Your task to perform on an android device: turn on translation in the chrome app Image 0: 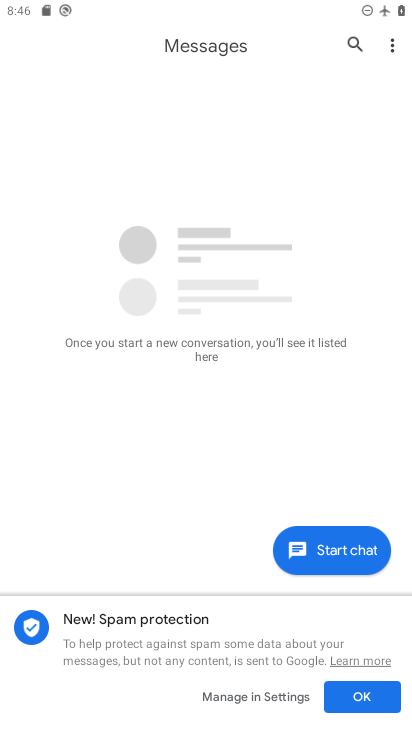
Step 0: press home button
Your task to perform on an android device: turn on translation in the chrome app Image 1: 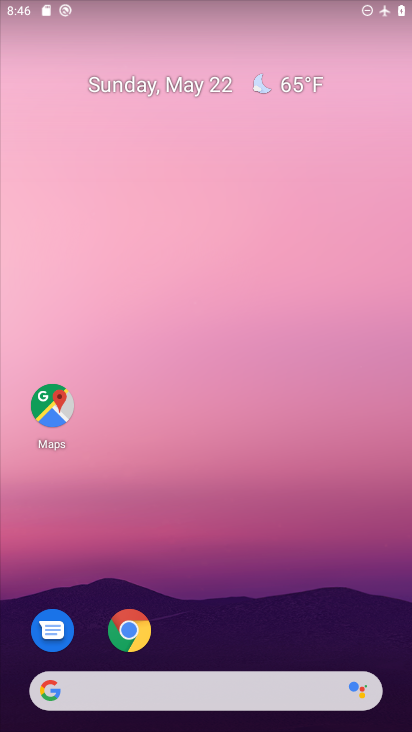
Step 1: drag from (187, 690) to (381, 206)
Your task to perform on an android device: turn on translation in the chrome app Image 2: 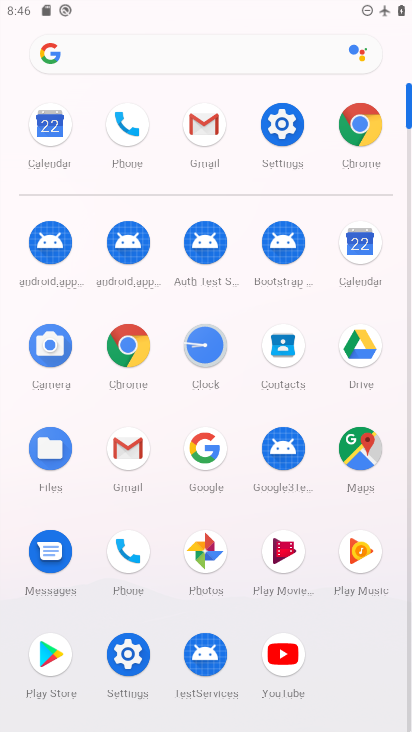
Step 2: click (355, 129)
Your task to perform on an android device: turn on translation in the chrome app Image 3: 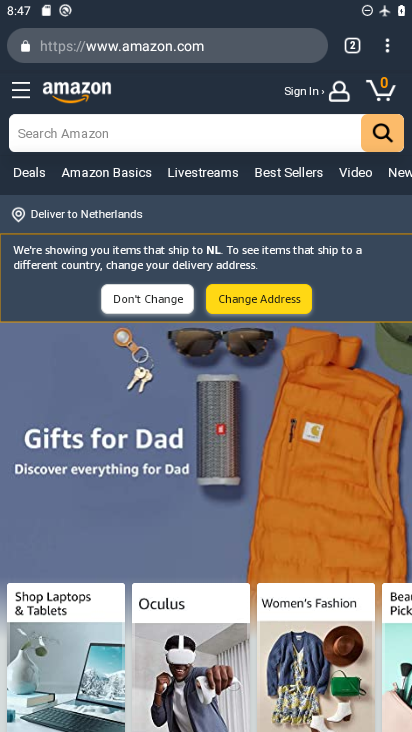
Step 3: drag from (388, 48) to (247, 515)
Your task to perform on an android device: turn on translation in the chrome app Image 4: 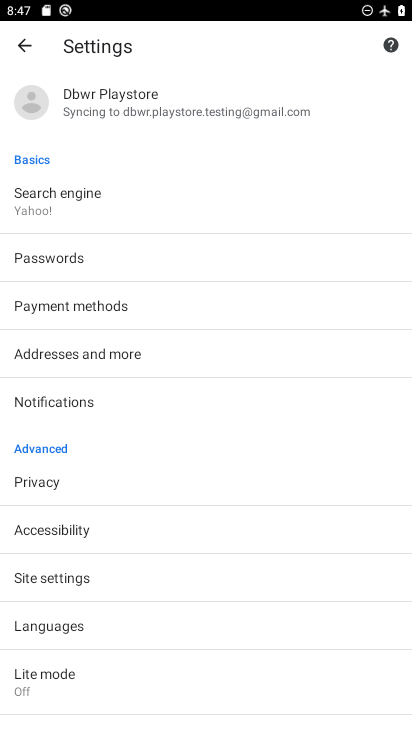
Step 4: click (83, 627)
Your task to perform on an android device: turn on translation in the chrome app Image 5: 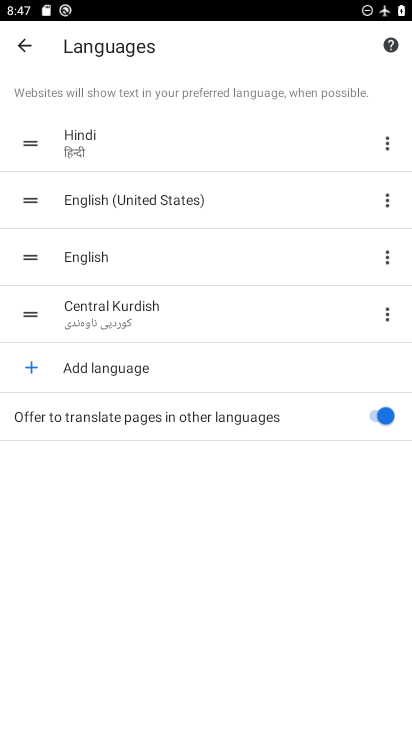
Step 5: task complete